Your task to perform on an android device: What's on my calendar today? Image 0: 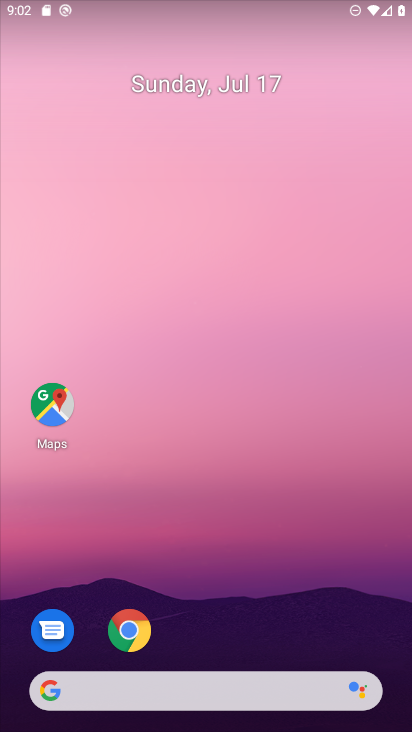
Step 0: drag from (363, 635) to (253, 33)
Your task to perform on an android device: What's on my calendar today? Image 1: 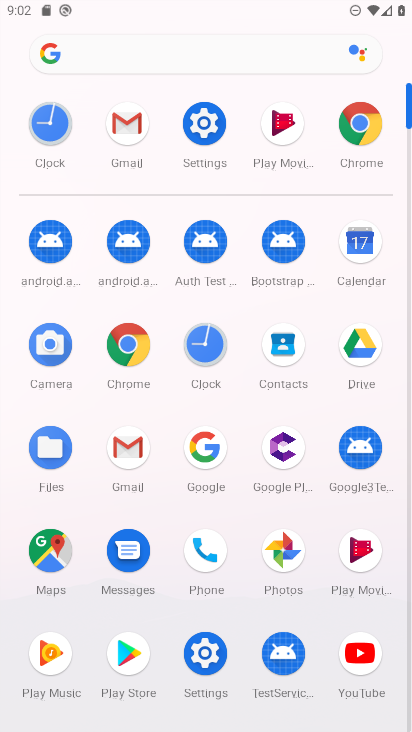
Step 1: click (355, 256)
Your task to perform on an android device: What's on my calendar today? Image 2: 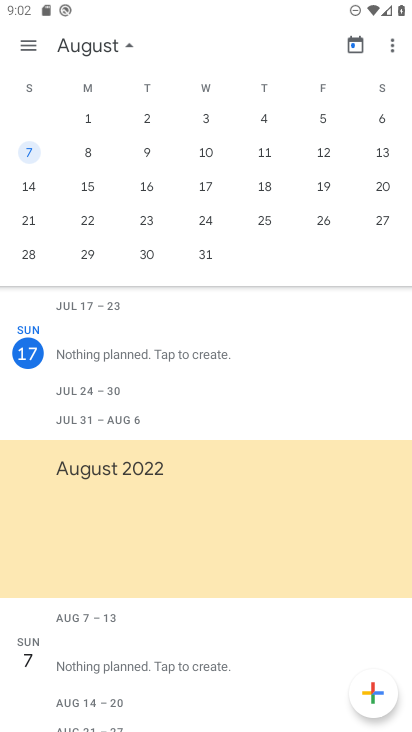
Step 2: drag from (77, 147) to (394, 139)
Your task to perform on an android device: What's on my calendar today? Image 3: 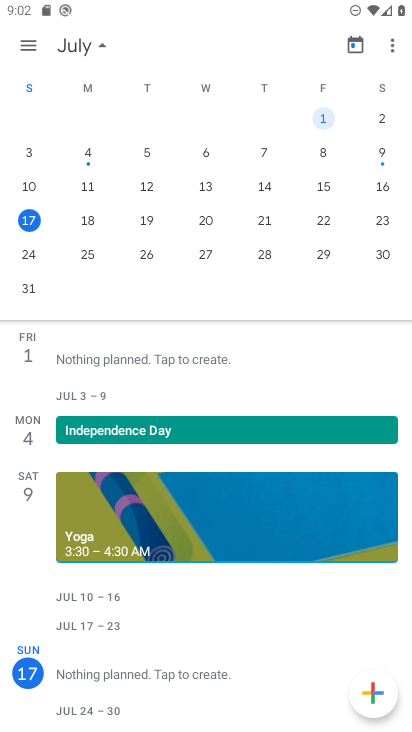
Step 3: click (88, 219)
Your task to perform on an android device: What's on my calendar today? Image 4: 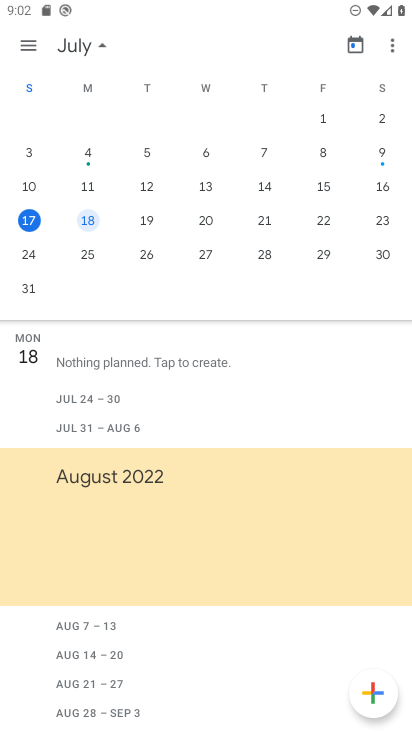
Step 4: click (153, 518)
Your task to perform on an android device: What's on my calendar today? Image 5: 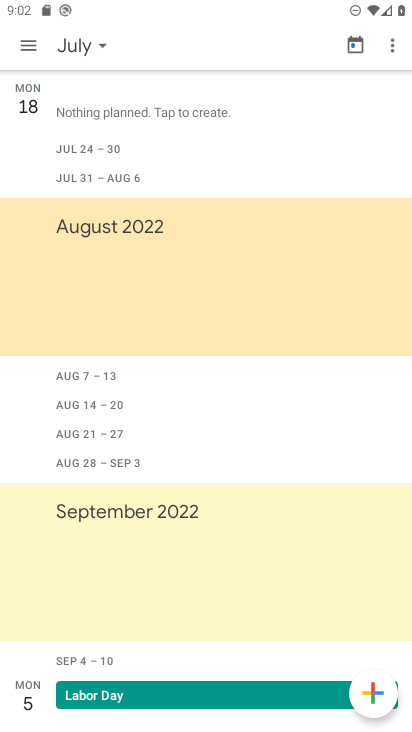
Step 5: task complete